Your task to perform on an android device: change alarm snooze length Image 0: 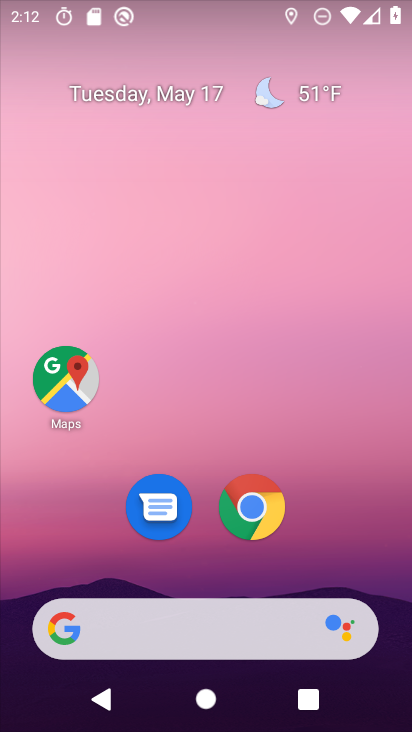
Step 0: drag from (208, 474) to (283, 185)
Your task to perform on an android device: change alarm snooze length Image 1: 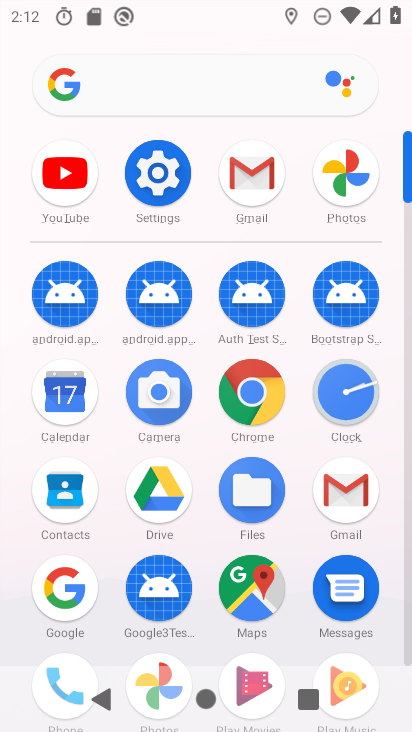
Step 1: click (342, 402)
Your task to perform on an android device: change alarm snooze length Image 2: 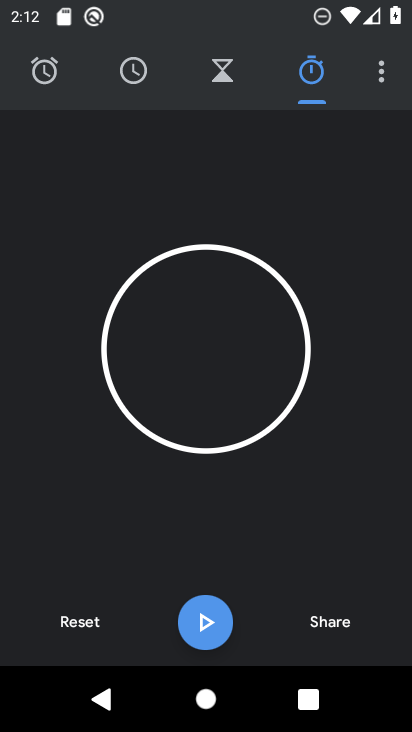
Step 2: click (370, 79)
Your task to perform on an android device: change alarm snooze length Image 3: 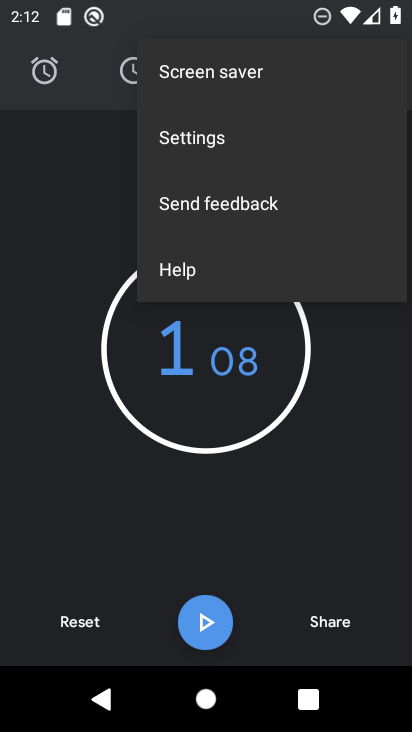
Step 3: click (216, 141)
Your task to perform on an android device: change alarm snooze length Image 4: 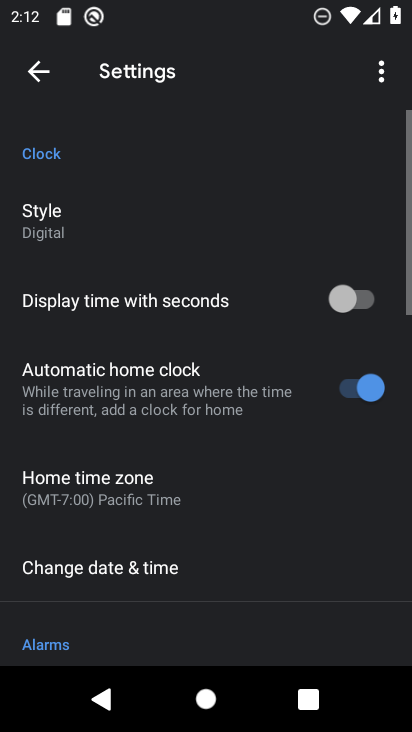
Step 4: drag from (161, 435) to (178, 115)
Your task to perform on an android device: change alarm snooze length Image 5: 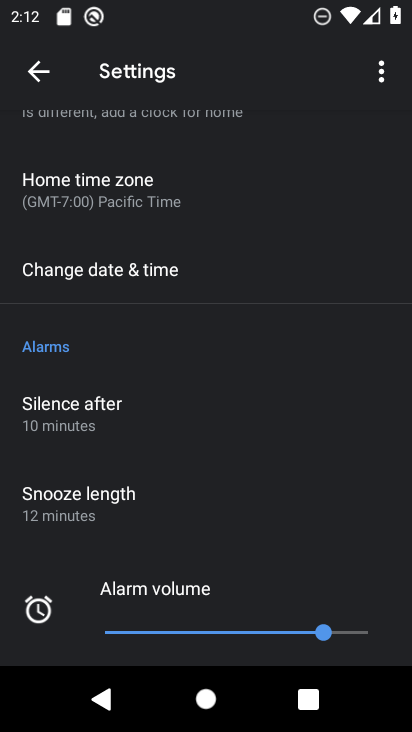
Step 5: click (60, 513)
Your task to perform on an android device: change alarm snooze length Image 6: 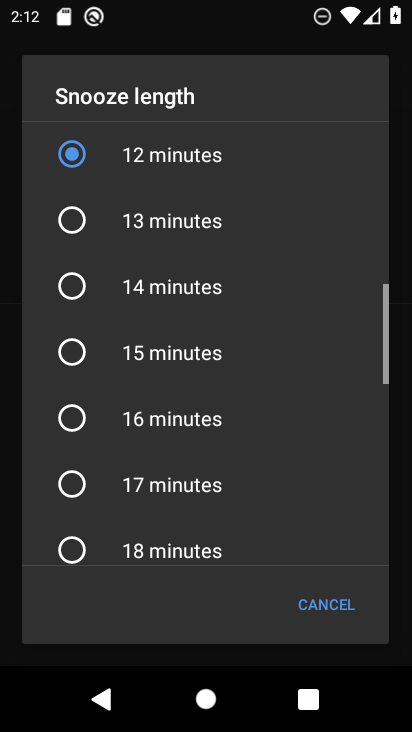
Step 6: click (75, 275)
Your task to perform on an android device: change alarm snooze length Image 7: 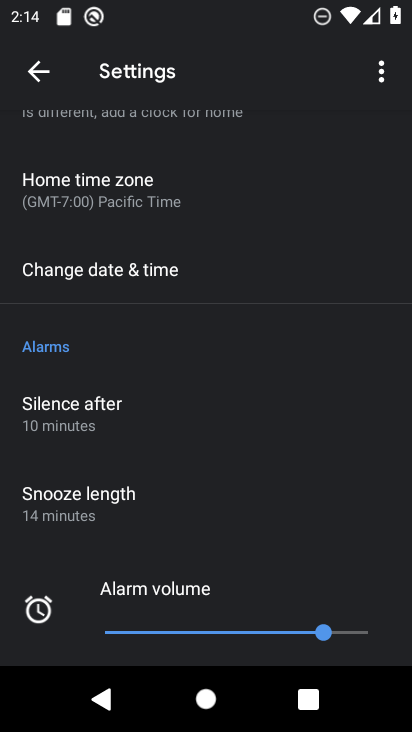
Step 7: task complete